Your task to perform on an android device: Go to sound settings Image 0: 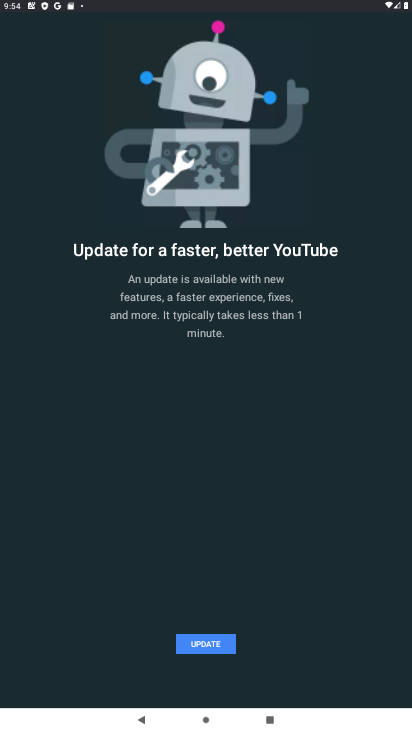
Step 0: press home button
Your task to perform on an android device: Go to sound settings Image 1: 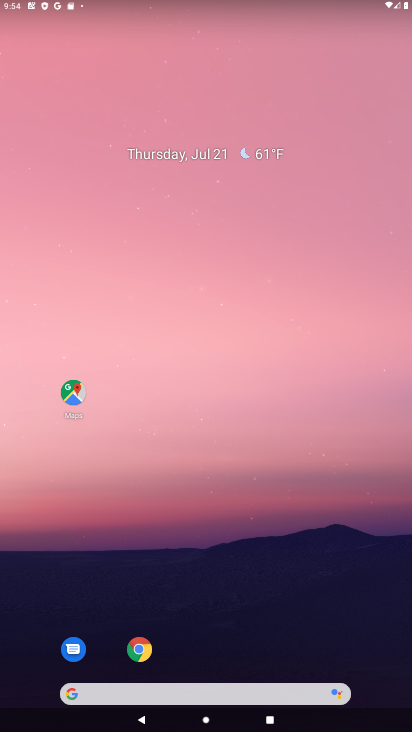
Step 1: drag from (192, 692) to (301, 339)
Your task to perform on an android device: Go to sound settings Image 2: 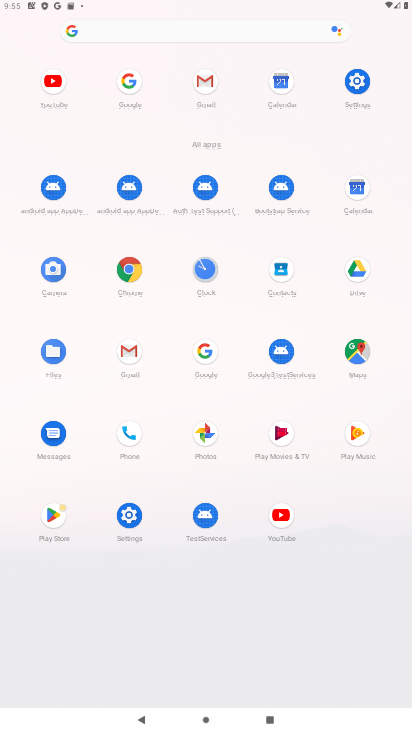
Step 2: click (360, 85)
Your task to perform on an android device: Go to sound settings Image 3: 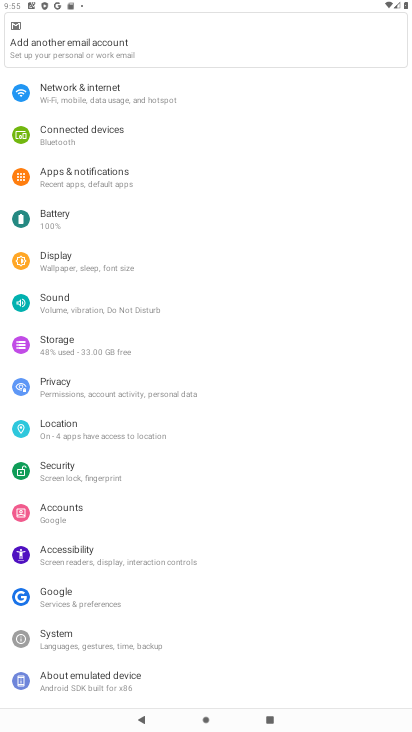
Step 3: click (76, 309)
Your task to perform on an android device: Go to sound settings Image 4: 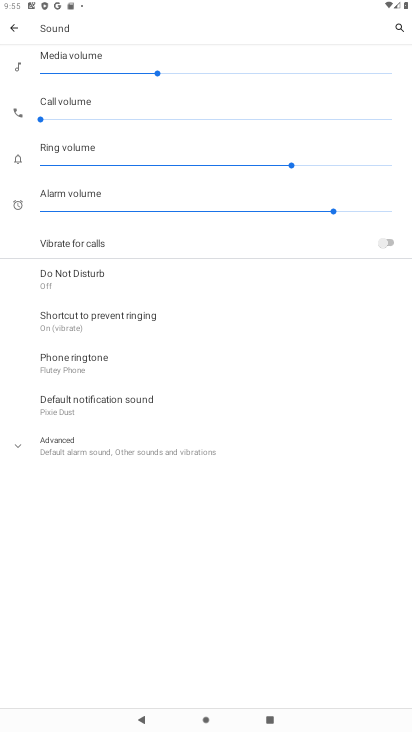
Step 4: task complete